Your task to perform on an android device: Add logitech g pro to the cart on target.com Image 0: 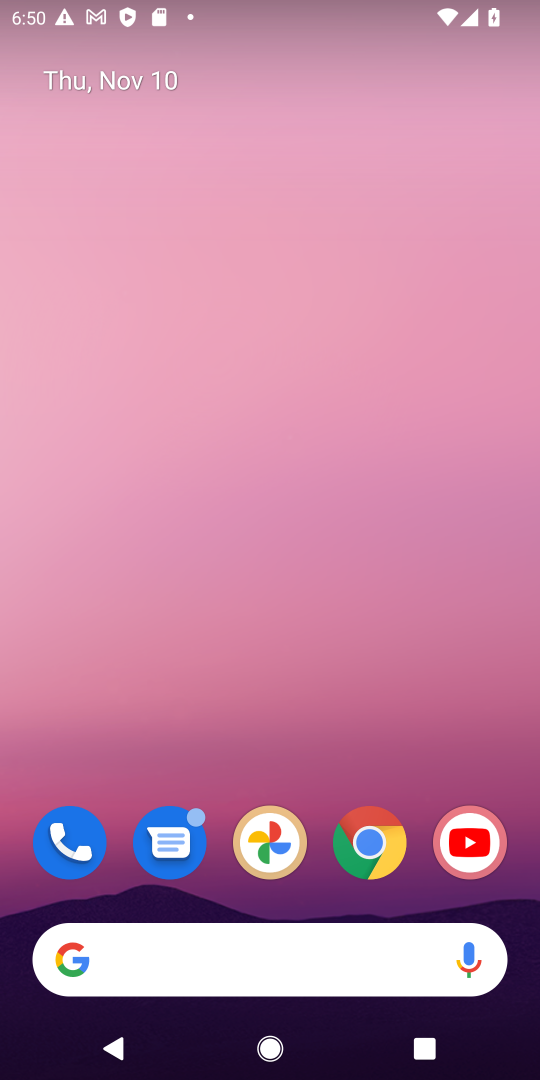
Step 0: click (365, 837)
Your task to perform on an android device: Add logitech g pro to the cart on target.com Image 1: 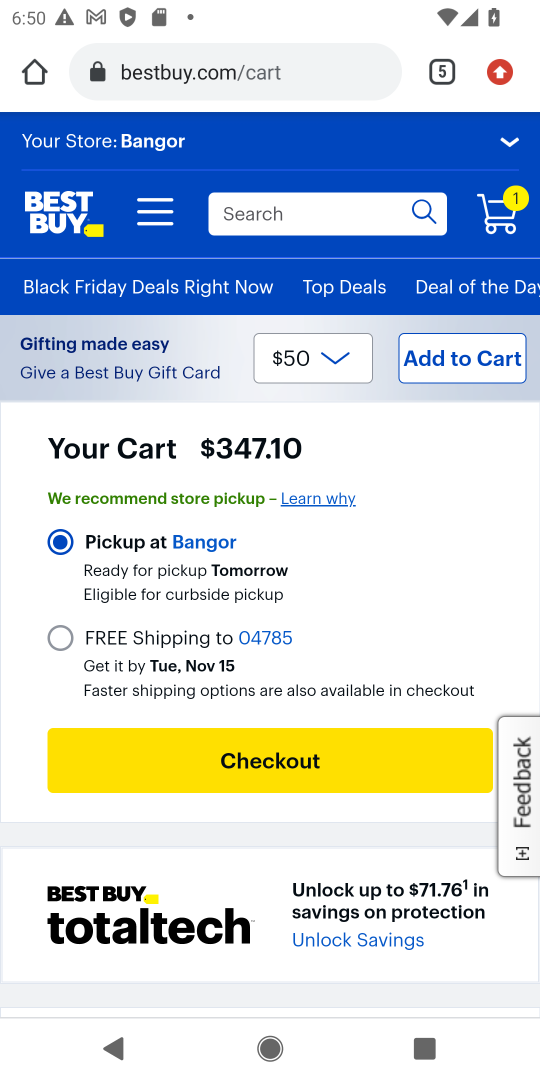
Step 1: click (445, 74)
Your task to perform on an android device: Add logitech g pro to the cart on target.com Image 2: 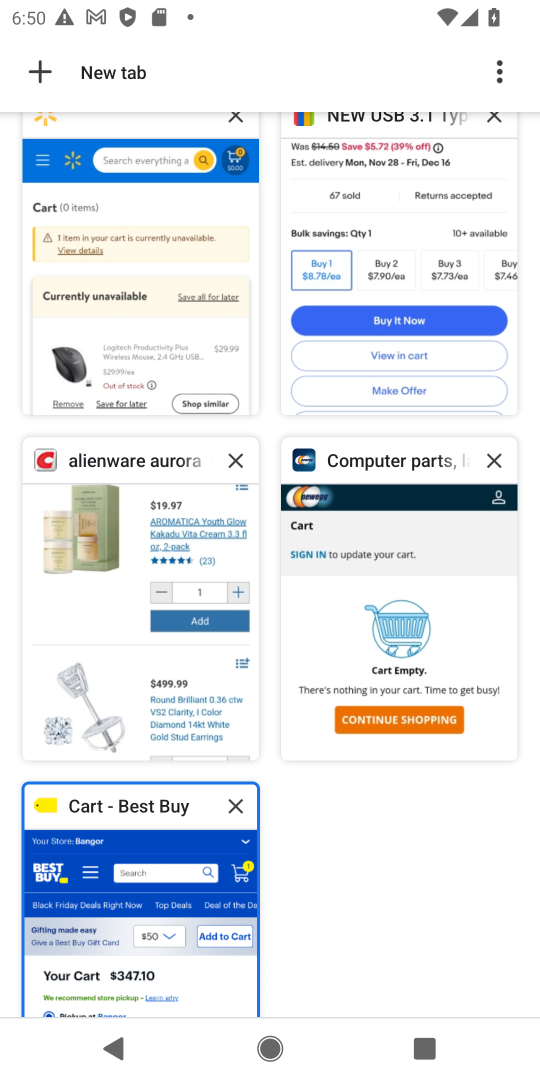
Step 2: click (36, 81)
Your task to perform on an android device: Add logitech g pro to the cart on target.com Image 3: 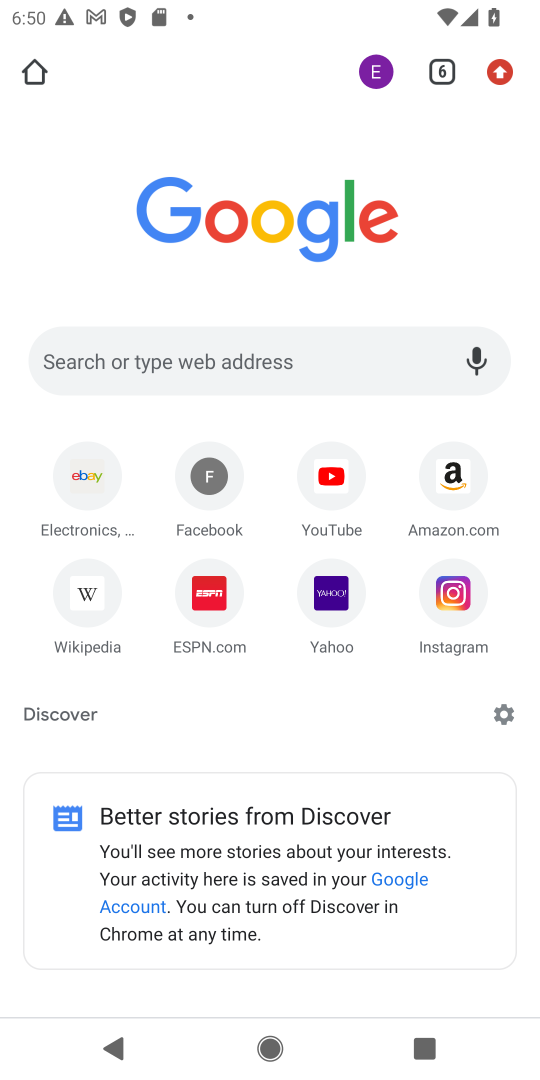
Step 3: click (129, 377)
Your task to perform on an android device: Add logitech g pro to the cart on target.com Image 4: 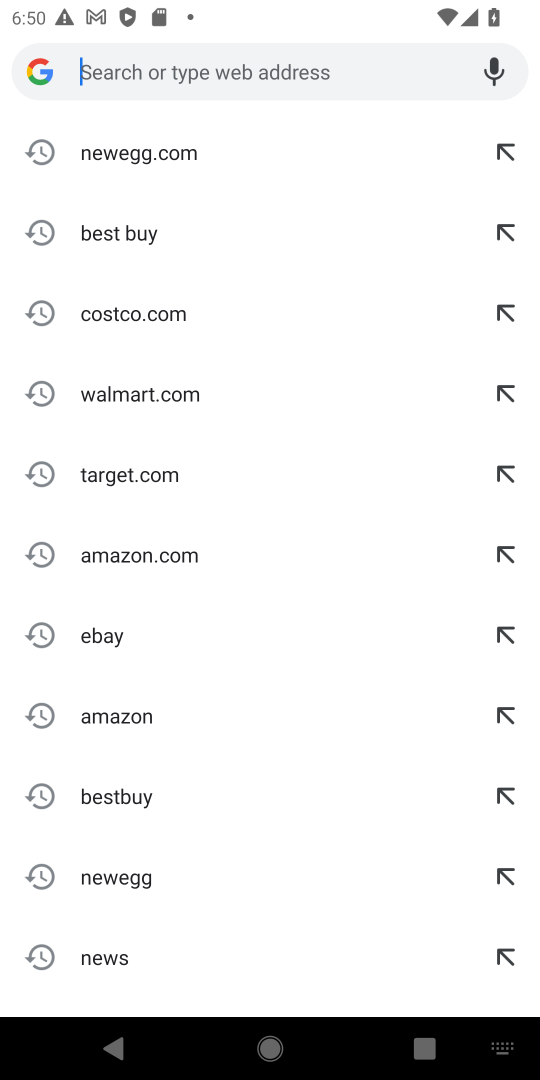
Step 4: click (115, 463)
Your task to perform on an android device: Add logitech g pro to the cart on target.com Image 5: 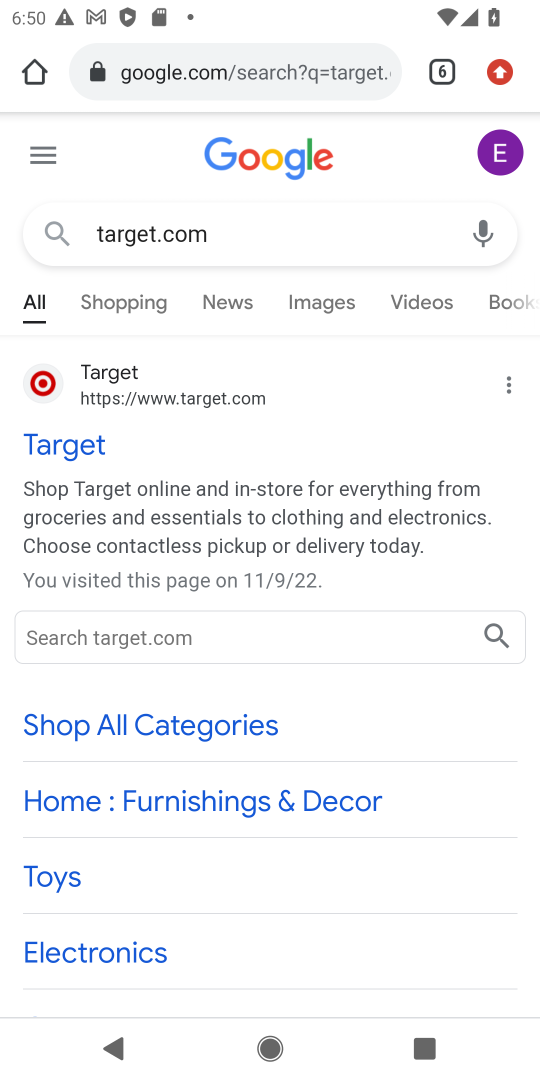
Step 5: click (87, 632)
Your task to perform on an android device: Add logitech g pro to the cart on target.com Image 6: 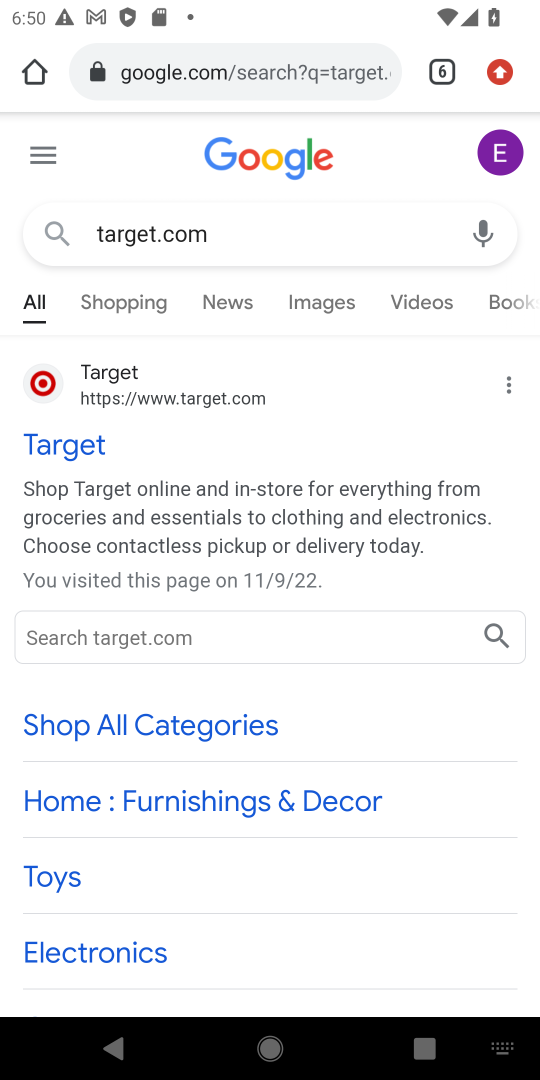
Step 6: type "logitech g pro"
Your task to perform on an android device: Add logitech g pro to the cart on target.com Image 7: 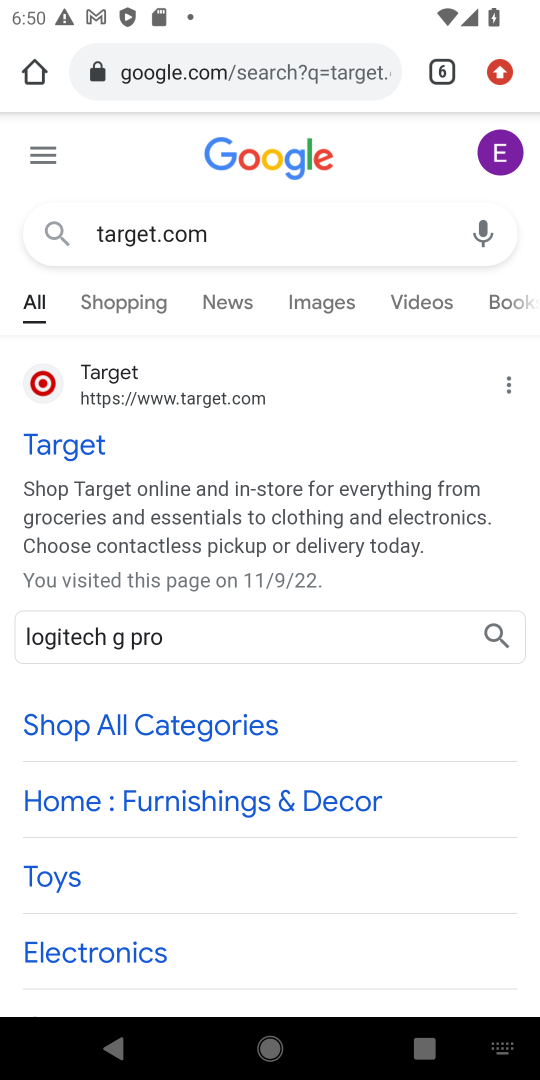
Step 7: click (495, 627)
Your task to perform on an android device: Add logitech g pro to the cart on target.com Image 8: 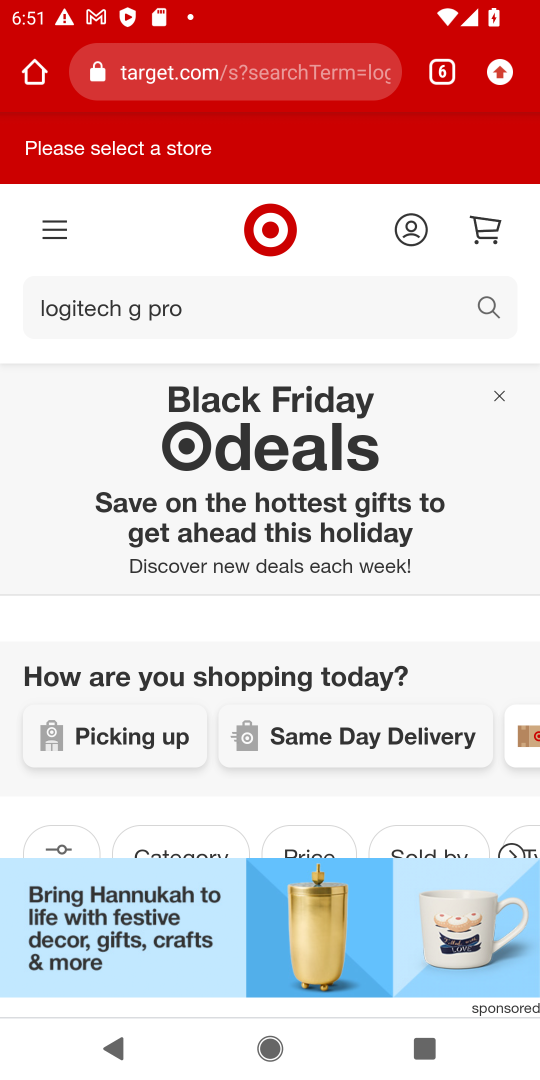
Step 8: drag from (356, 785) to (453, 343)
Your task to perform on an android device: Add logitech g pro to the cart on target.com Image 9: 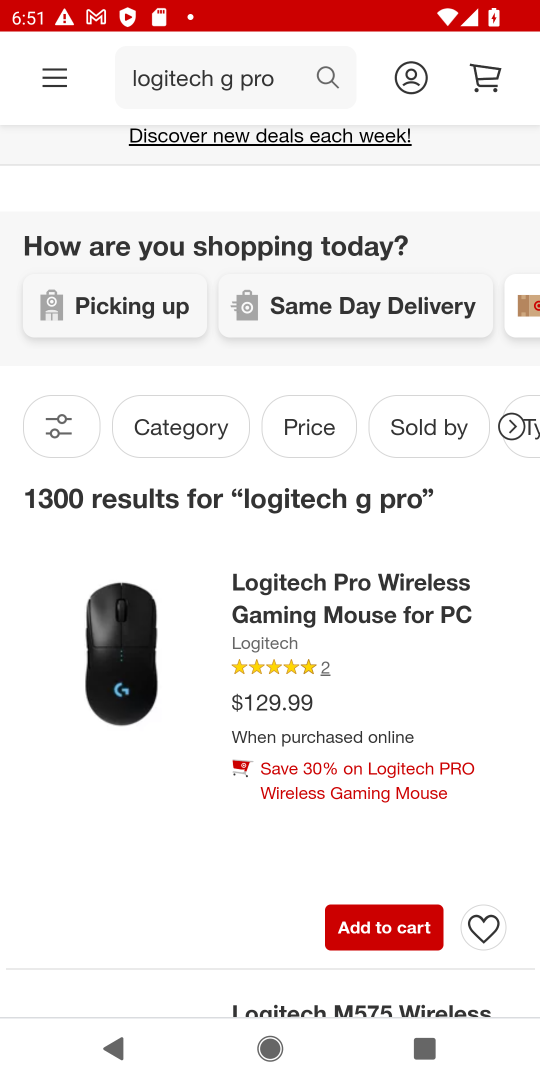
Step 9: drag from (198, 911) to (313, 540)
Your task to perform on an android device: Add logitech g pro to the cart on target.com Image 10: 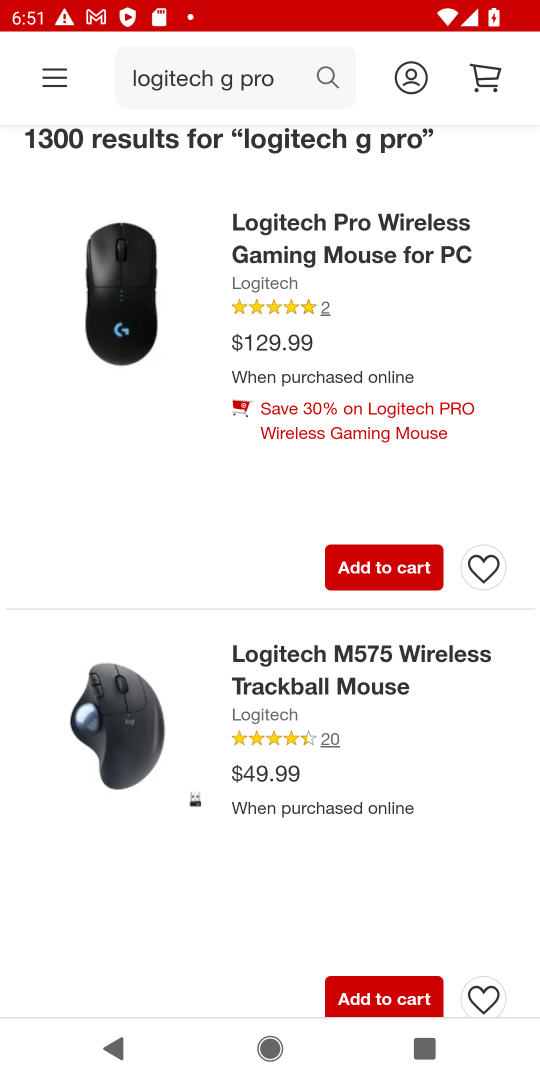
Step 10: click (382, 577)
Your task to perform on an android device: Add logitech g pro to the cart on target.com Image 11: 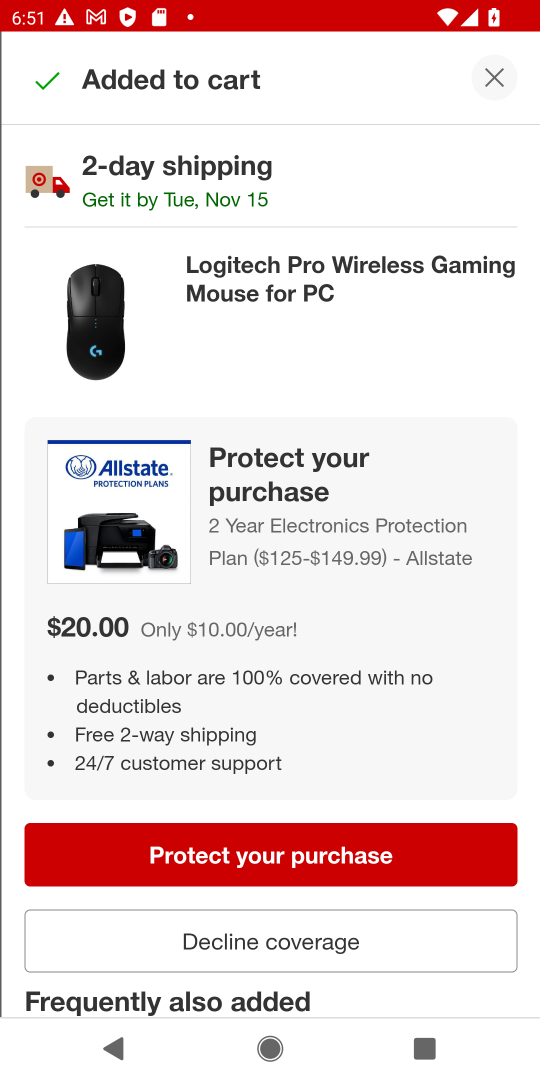
Step 11: click (222, 942)
Your task to perform on an android device: Add logitech g pro to the cart on target.com Image 12: 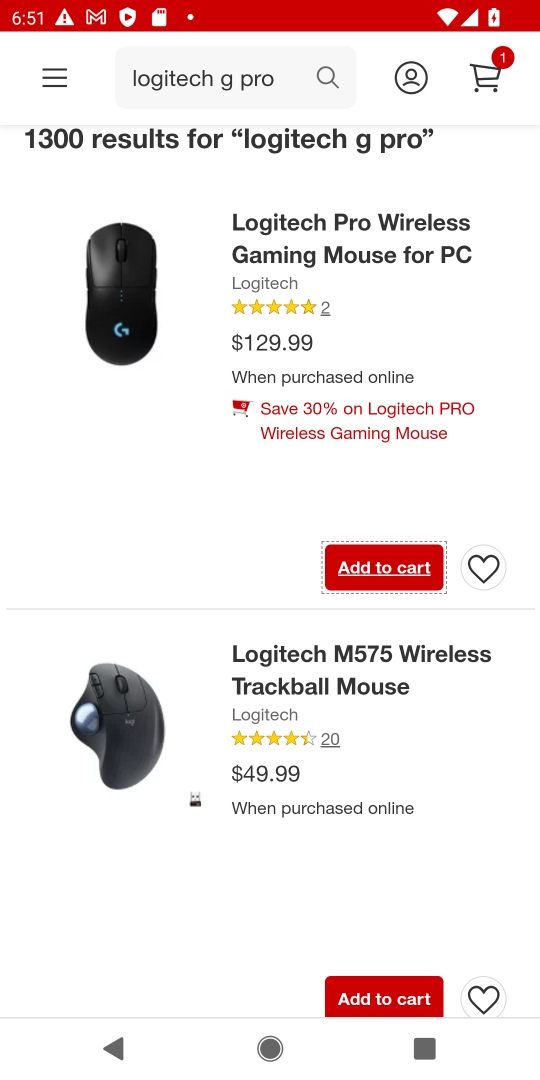
Step 12: task complete